Your task to perform on an android device: Search for sushi restaurants on Maps Image 0: 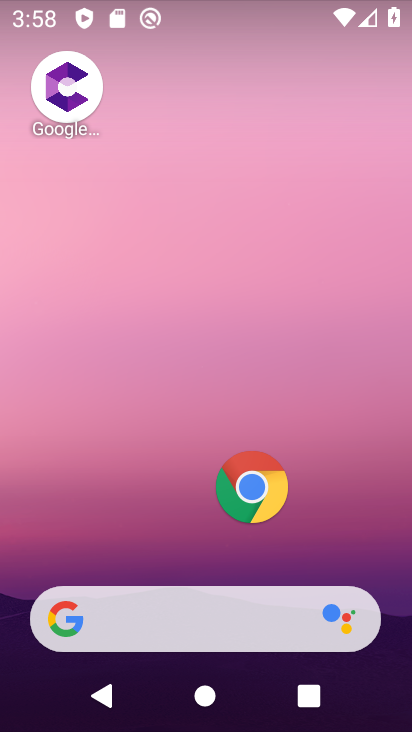
Step 0: drag from (150, 497) to (244, 36)
Your task to perform on an android device: Search for sushi restaurants on Maps Image 1: 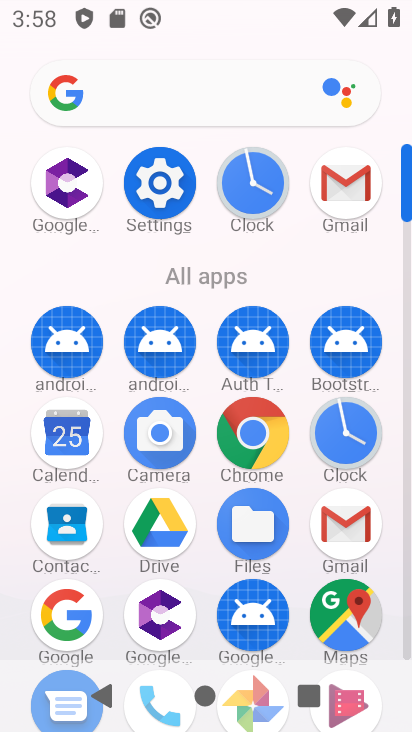
Step 1: click (329, 607)
Your task to perform on an android device: Search for sushi restaurants on Maps Image 2: 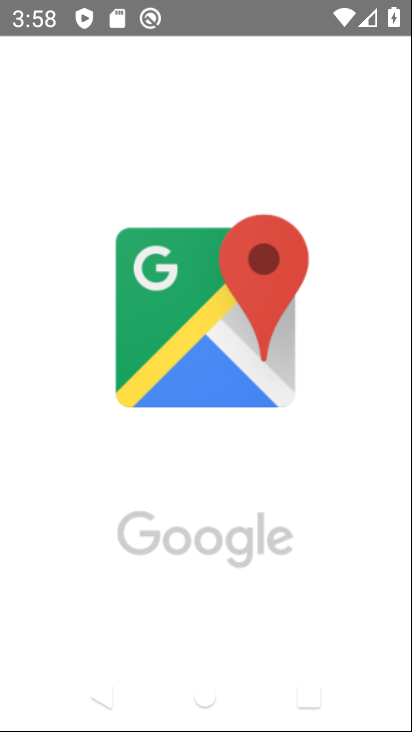
Step 2: click (184, 426)
Your task to perform on an android device: Search for sushi restaurants on Maps Image 3: 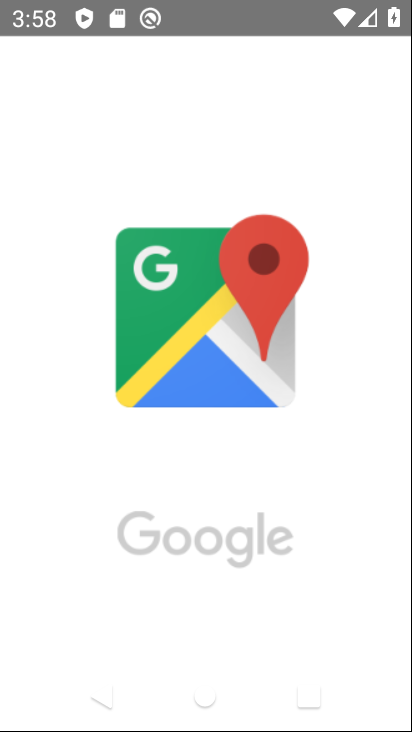
Step 3: task complete